Your task to perform on an android device: Go to Yahoo.com Image 0: 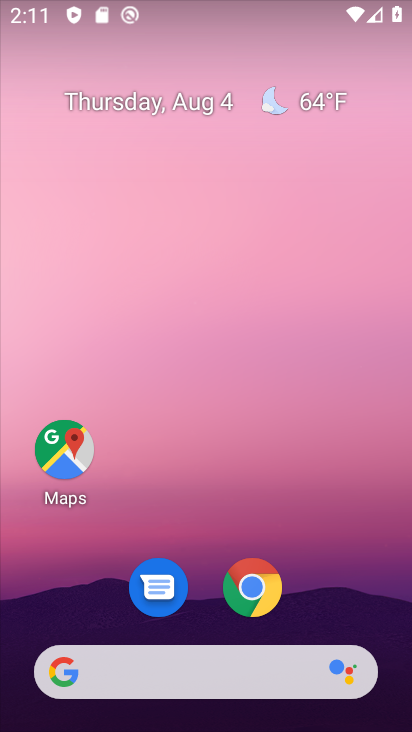
Step 0: click (256, 584)
Your task to perform on an android device: Go to Yahoo.com Image 1: 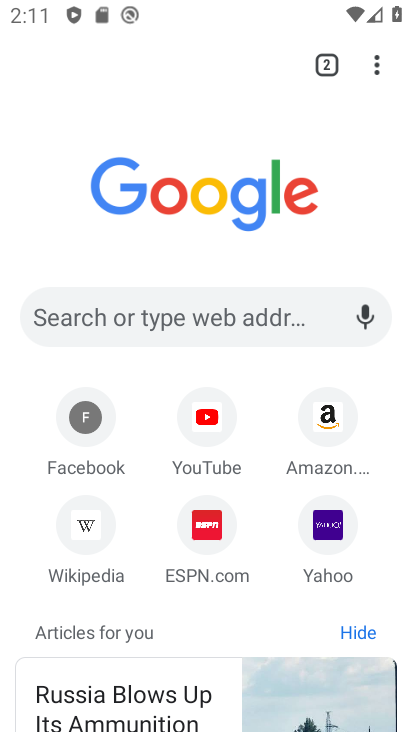
Step 1: click (318, 530)
Your task to perform on an android device: Go to Yahoo.com Image 2: 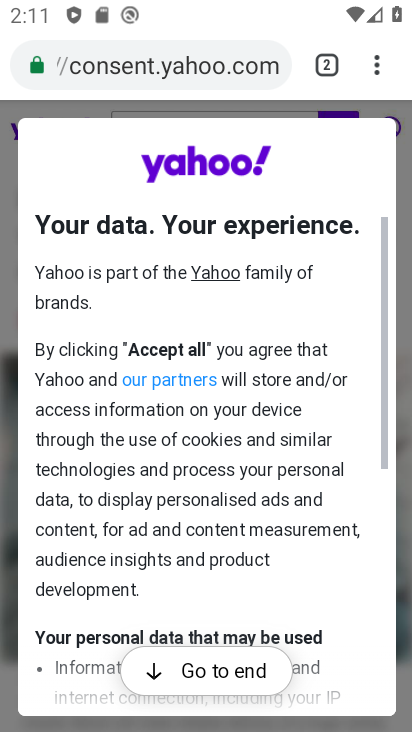
Step 2: drag from (296, 595) to (289, 286)
Your task to perform on an android device: Go to Yahoo.com Image 3: 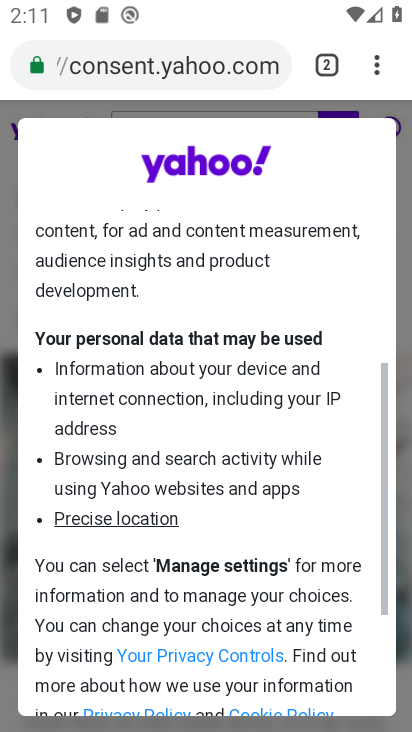
Step 3: drag from (269, 650) to (291, 273)
Your task to perform on an android device: Go to Yahoo.com Image 4: 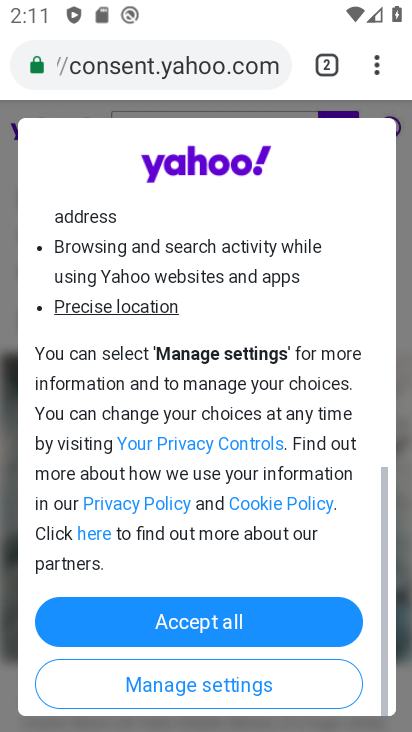
Step 4: click (190, 623)
Your task to perform on an android device: Go to Yahoo.com Image 5: 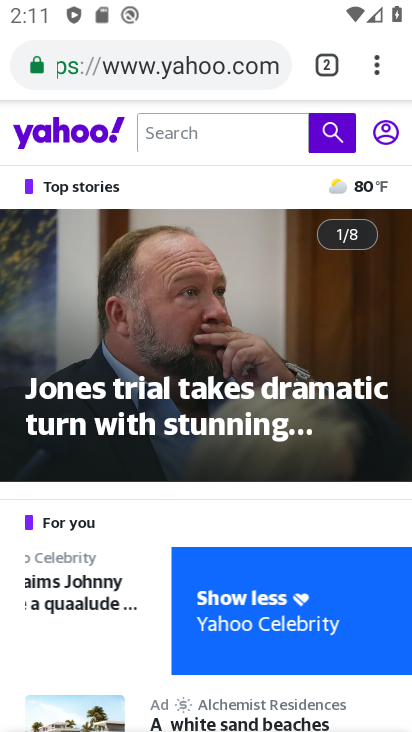
Step 5: task complete